Your task to perform on an android device: When is my next appointment? Image 0: 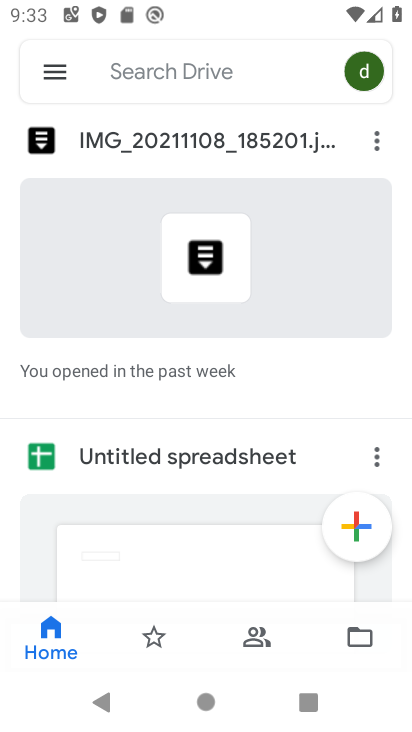
Step 0: press home button
Your task to perform on an android device: When is my next appointment? Image 1: 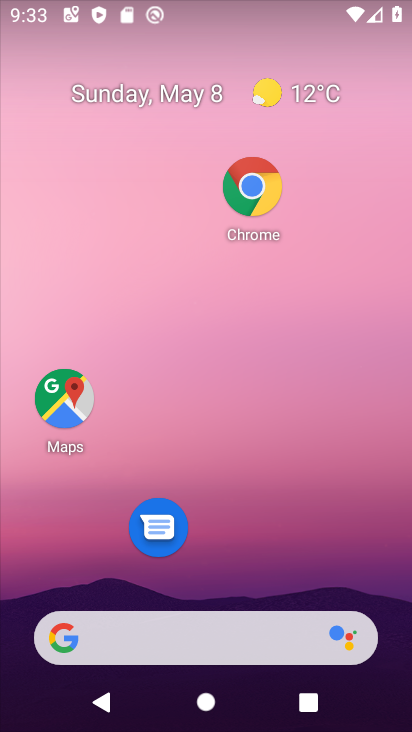
Step 1: drag from (289, 599) to (350, 272)
Your task to perform on an android device: When is my next appointment? Image 2: 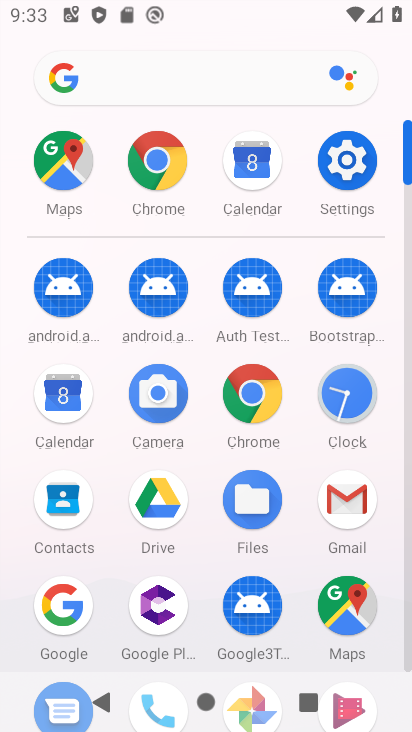
Step 2: click (54, 382)
Your task to perform on an android device: When is my next appointment? Image 3: 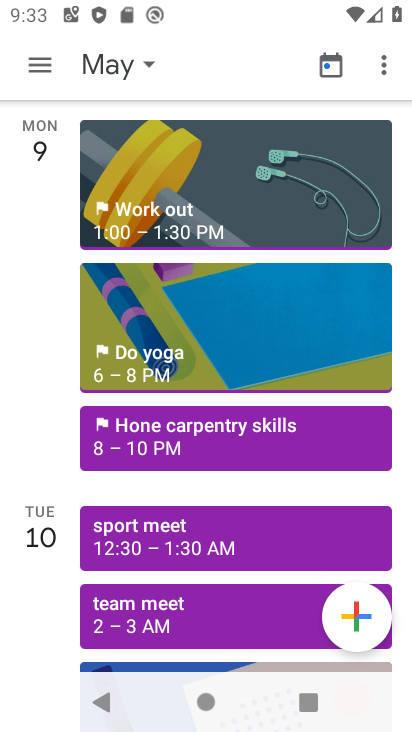
Step 3: click (45, 59)
Your task to perform on an android device: When is my next appointment? Image 4: 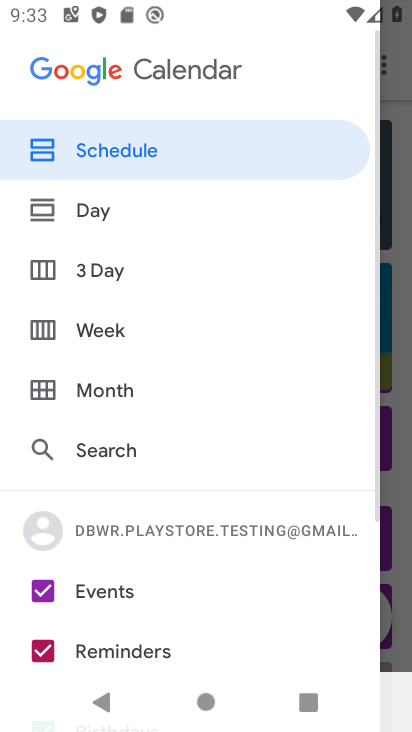
Step 4: click (117, 391)
Your task to perform on an android device: When is my next appointment? Image 5: 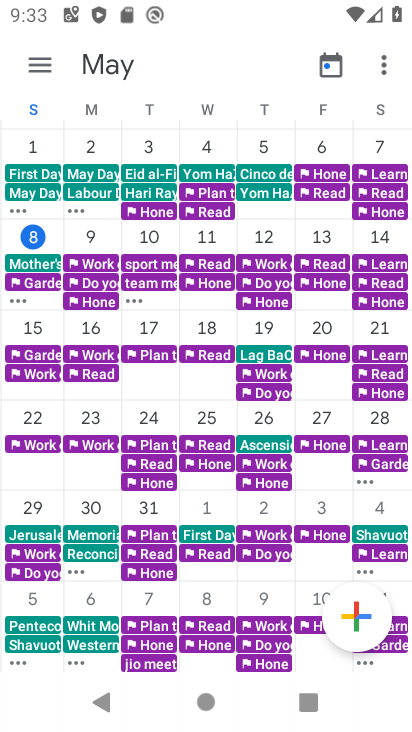
Step 5: click (152, 242)
Your task to perform on an android device: When is my next appointment? Image 6: 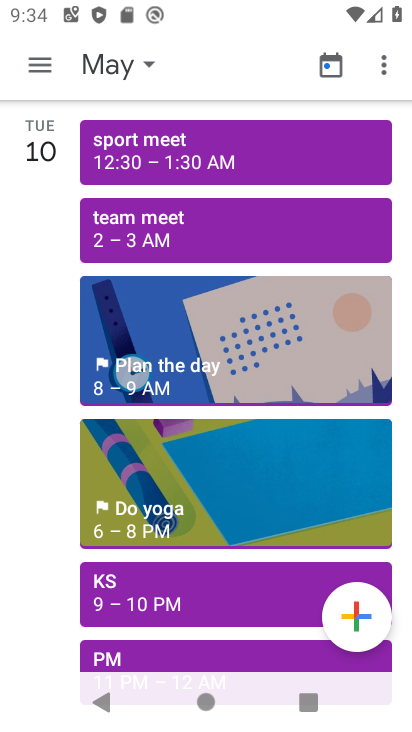
Step 6: task complete